Your task to perform on an android device: Open the calendar app, open the side menu, and click the "Day" option Image 0: 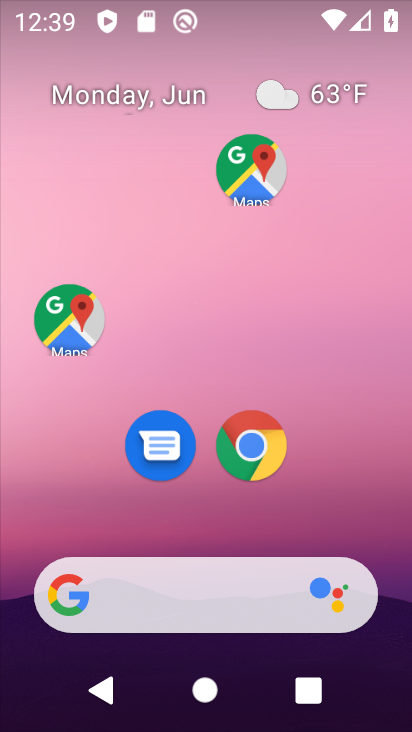
Step 0: drag from (265, 673) to (147, 212)
Your task to perform on an android device: Open the calendar app, open the side menu, and click the "Day" option Image 1: 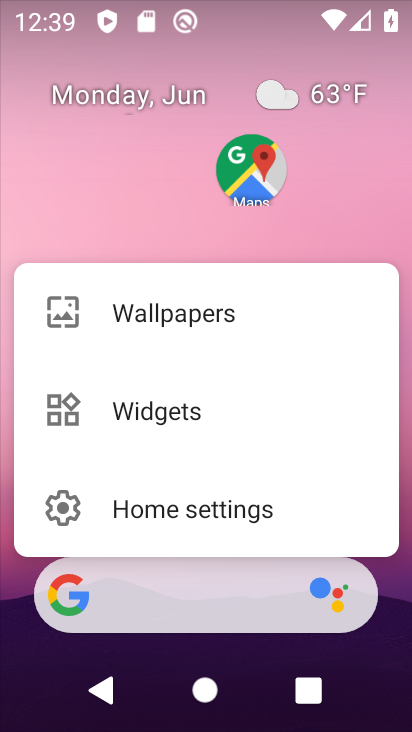
Step 1: drag from (215, 549) to (84, 42)
Your task to perform on an android device: Open the calendar app, open the side menu, and click the "Day" option Image 2: 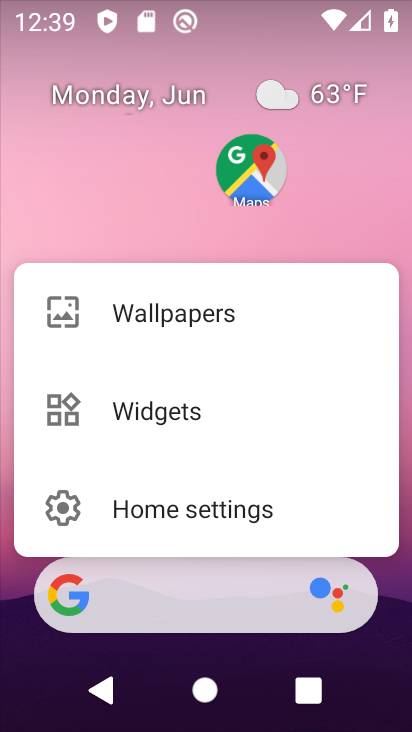
Step 2: drag from (240, 574) to (150, 5)
Your task to perform on an android device: Open the calendar app, open the side menu, and click the "Day" option Image 3: 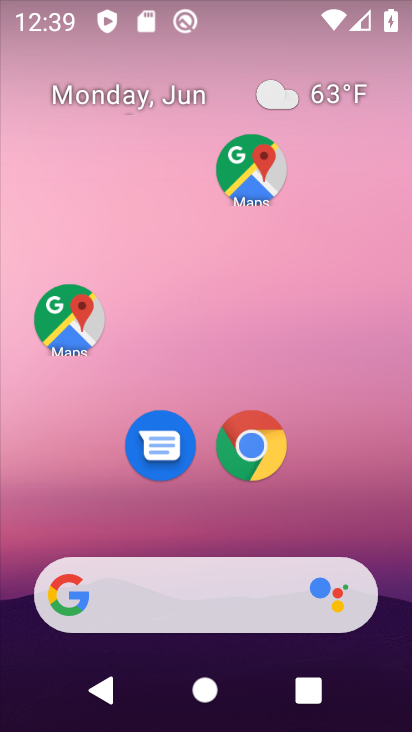
Step 3: click (148, 165)
Your task to perform on an android device: Open the calendar app, open the side menu, and click the "Day" option Image 4: 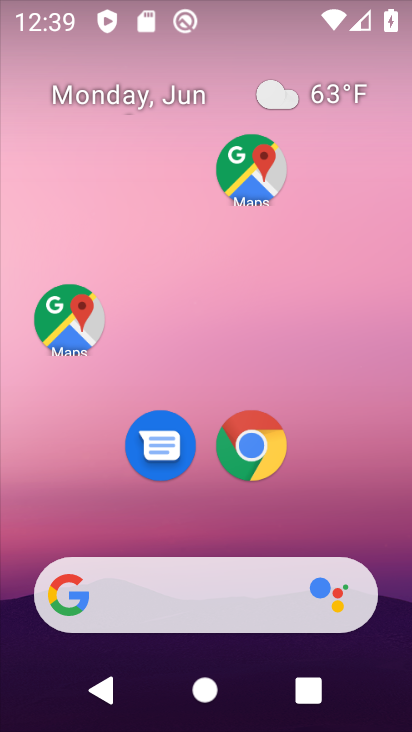
Step 4: click (143, 170)
Your task to perform on an android device: Open the calendar app, open the side menu, and click the "Day" option Image 5: 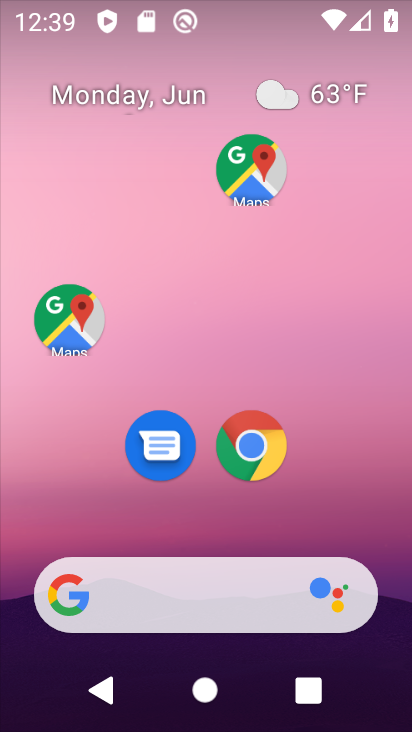
Step 5: drag from (223, 319) to (186, 24)
Your task to perform on an android device: Open the calendar app, open the side menu, and click the "Day" option Image 6: 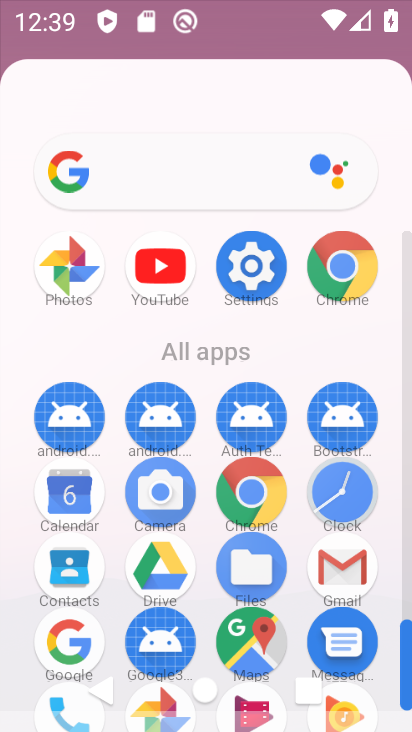
Step 6: drag from (200, 575) to (131, 199)
Your task to perform on an android device: Open the calendar app, open the side menu, and click the "Day" option Image 7: 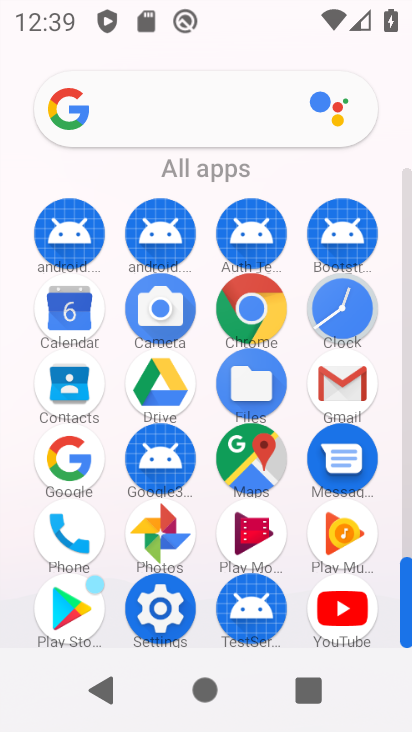
Step 7: click (75, 302)
Your task to perform on an android device: Open the calendar app, open the side menu, and click the "Day" option Image 8: 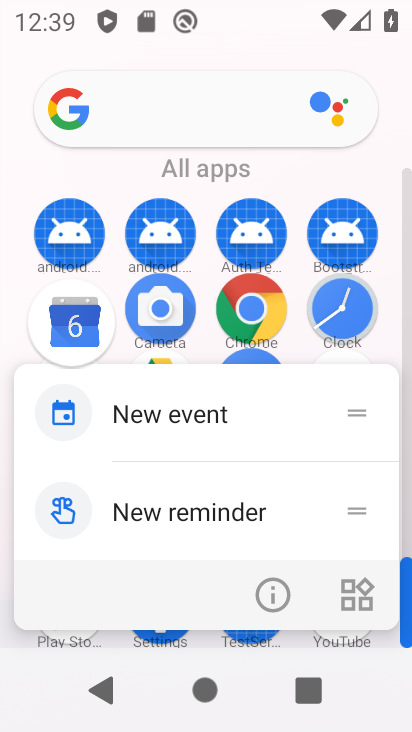
Step 8: click (77, 316)
Your task to perform on an android device: Open the calendar app, open the side menu, and click the "Day" option Image 9: 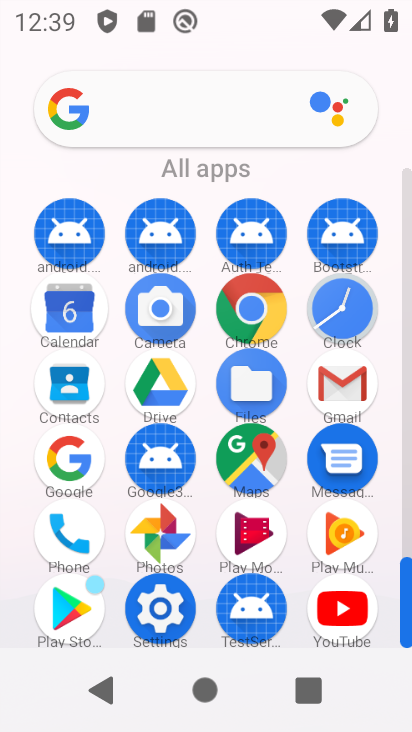
Step 9: click (84, 310)
Your task to perform on an android device: Open the calendar app, open the side menu, and click the "Day" option Image 10: 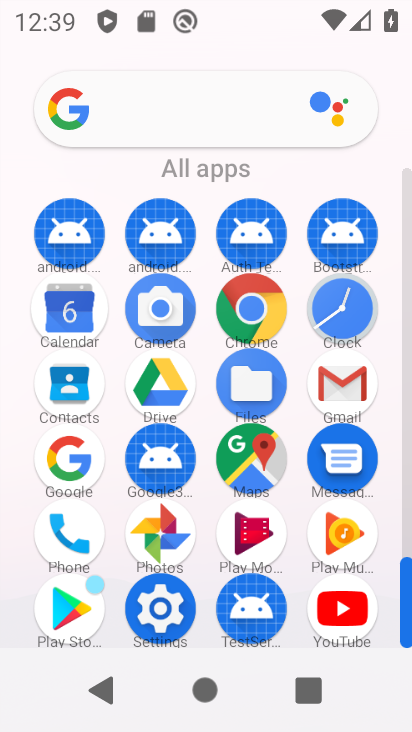
Step 10: click (82, 306)
Your task to perform on an android device: Open the calendar app, open the side menu, and click the "Day" option Image 11: 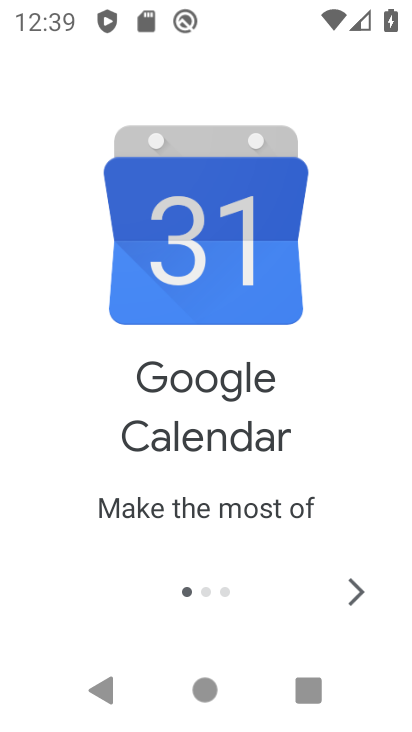
Step 11: click (346, 588)
Your task to perform on an android device: Open the calendar app, open the side menu, and click the "Day" option Image 12: 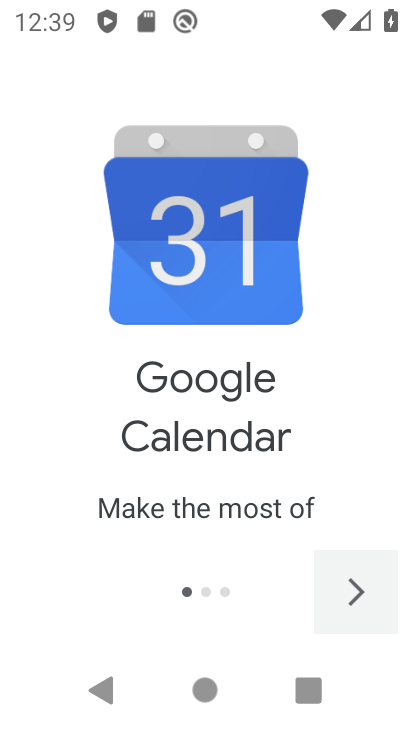
Step 12: click (346, 590)
Your task to perform on an android device: Open the calendar app, open the side menu, and click the "Day" option Image 13: 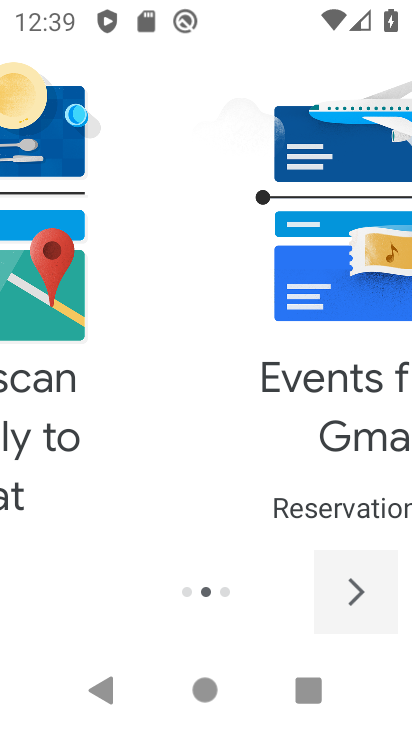
Step 13: click (365, 583)
Your task to perform on an android device: Open the calendar app, open the side menu, and click the "Day" option Image 14: 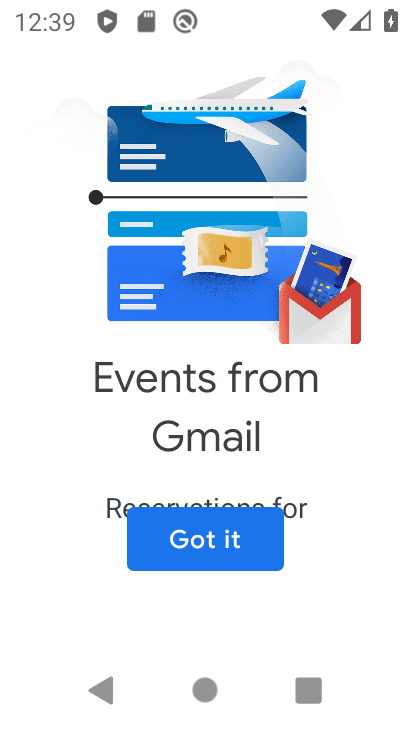
Step 14: click (365, 583)
Your task to perform on an android device: Open the calendar app, open the side menu, and click the "Day" option Image 15: 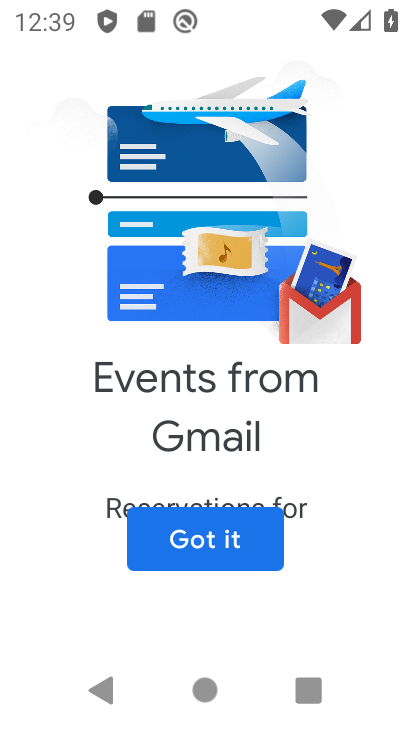
Step 15: click (223, 547)
Your task to perform on an android device: Open the calendar app, open the side menu, and click the "Day" option Image 16: 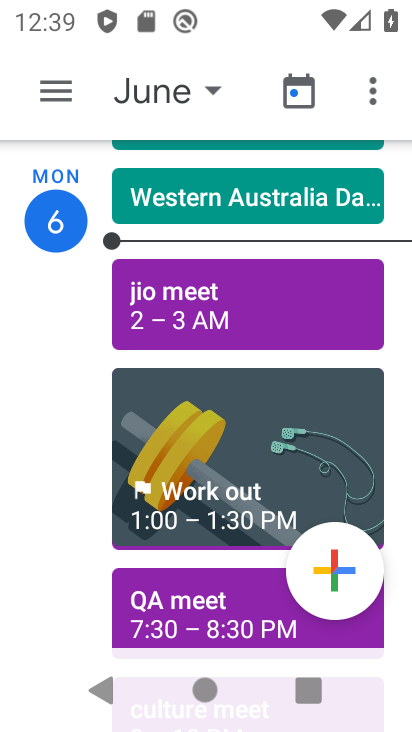
Step 16: click (59, 99)
Your task to perform on an android device: Open the calendar app, open the side menu, and click the "Day" option Image 17: 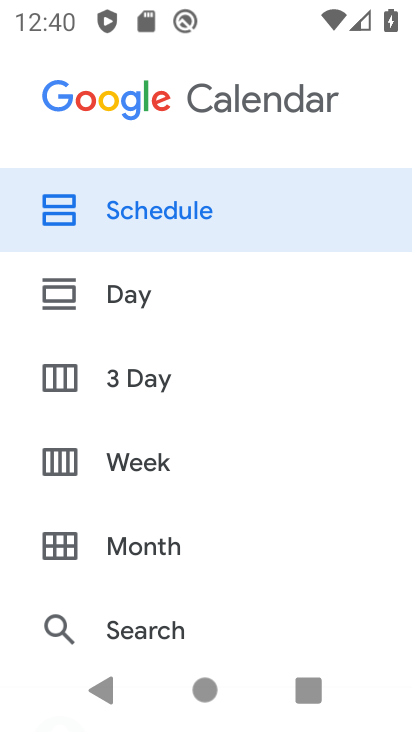
Step 17: click (133, 284)
Your task to perform on an android device: Open the calendar app, open the side menu, and click the "Day" option Image 18: 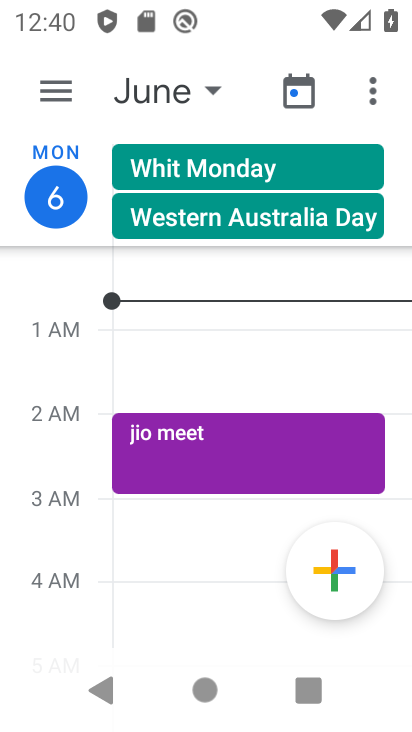
Step 18: click (54, 103)
Your task to perform on an android device: Open the calendar app, open the side menu, and click the "Day" option Image 19: 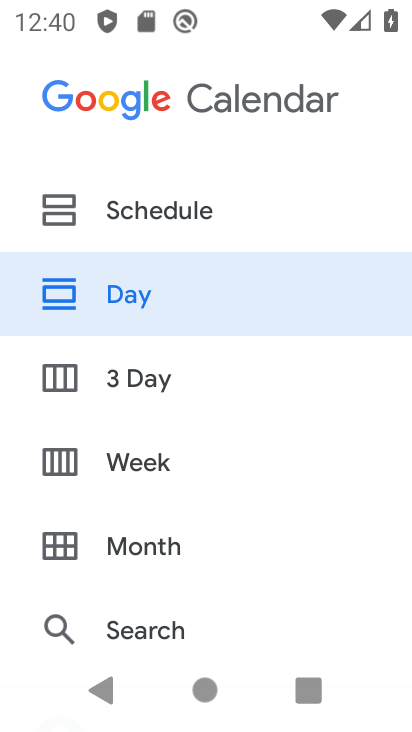
Step 19: click (135, 295)
Your task to perform on an android device: Open the calendar app, open the side menu, and click the "Day" option Image 20: 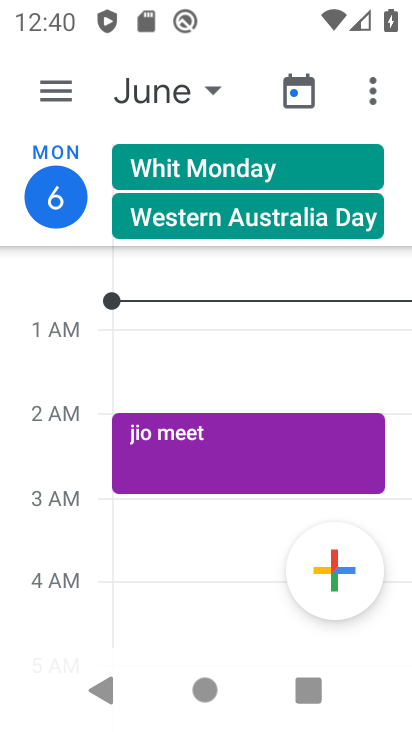
Step 20: task complete